Your task to perform on an android device: turn on notifications settings in the gmail app Image 0: 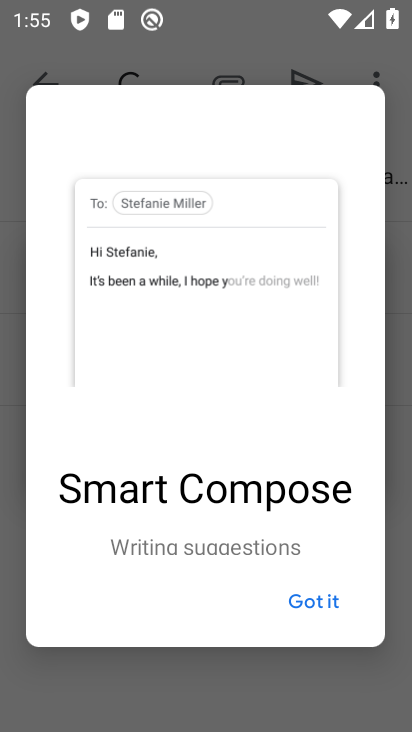
Step 0: press home button
Your task to perform on an android device: turn on notifications settings in the gmail app Image 1: 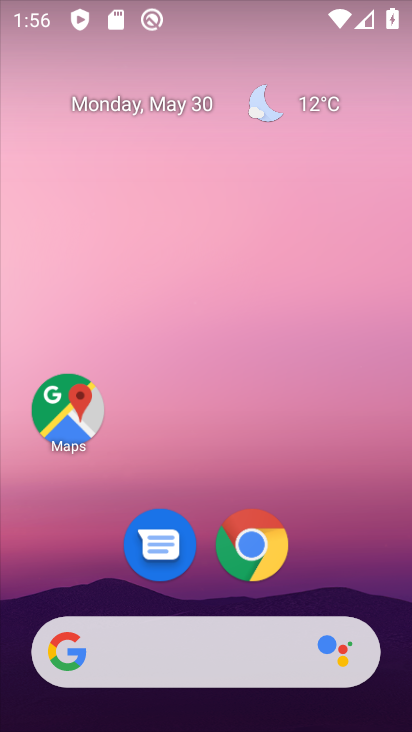
Step 1: drag from (202, 601) to (315, 0)
Your task to perform on an android device: turn on notifications settings in the gmail app Image 2: 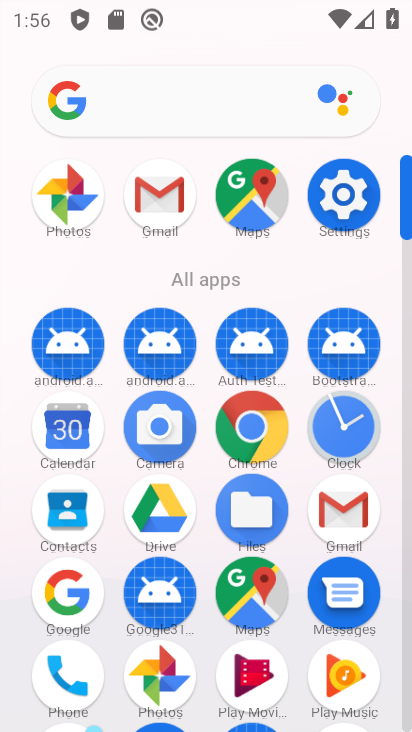
Step 2: click (160, 196)
Your task to perform on an android device: turn on notifications settings in the gmail app Image 3: 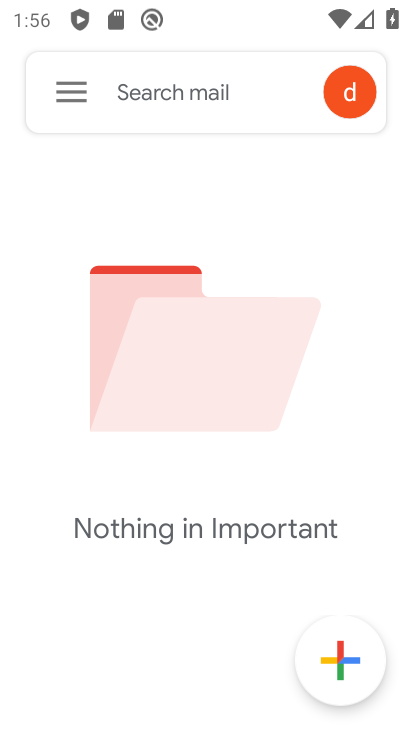
Step 3: click (79, 101)
Your task to perform on an android device: turn on notifications settings in the gmail app Image 4: 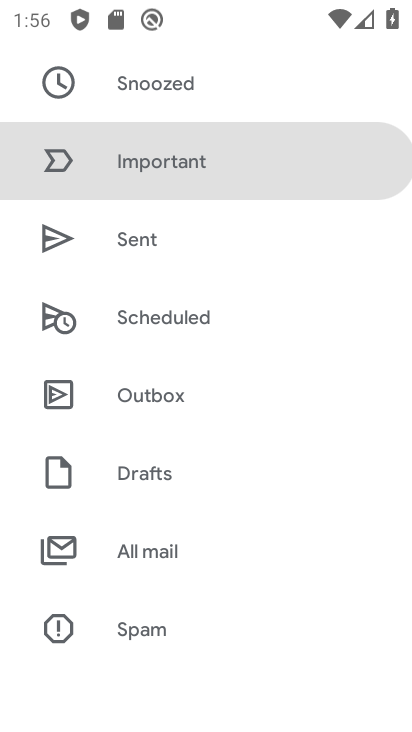
Step 4: drag from (167, 645) to (330, 140)
Your task to perform on an android device: turn on notifications settings in the gmail app Image 5: 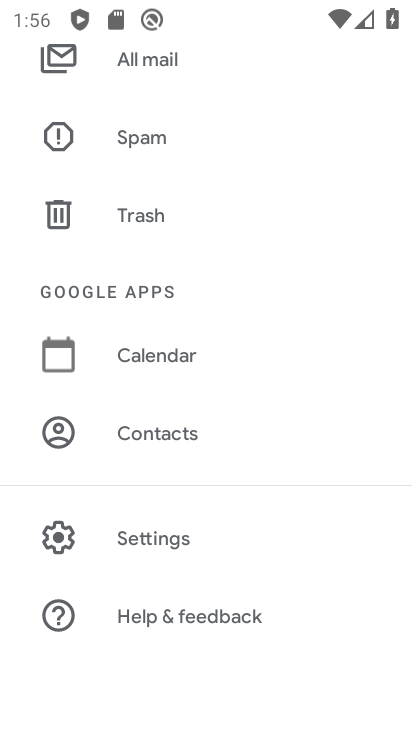
Step 5: click (163, 552)
Your task to perform on an android device: turn on notifications settings in the gmail app Image 6: 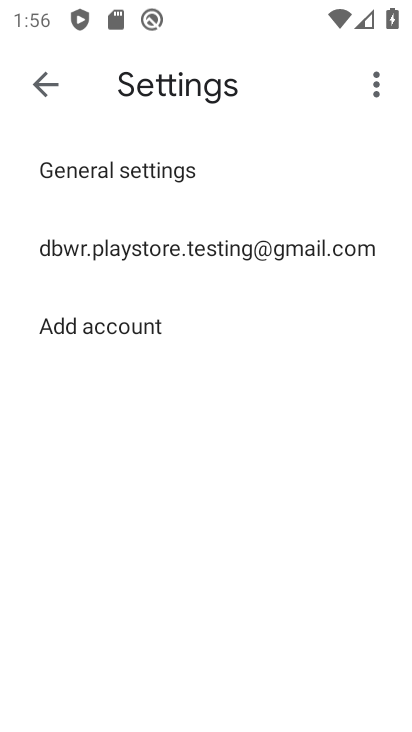
Step 6: click (208, 276)
Your task to perform on an android device: turn on notifications settings in the gmail app Image 7: 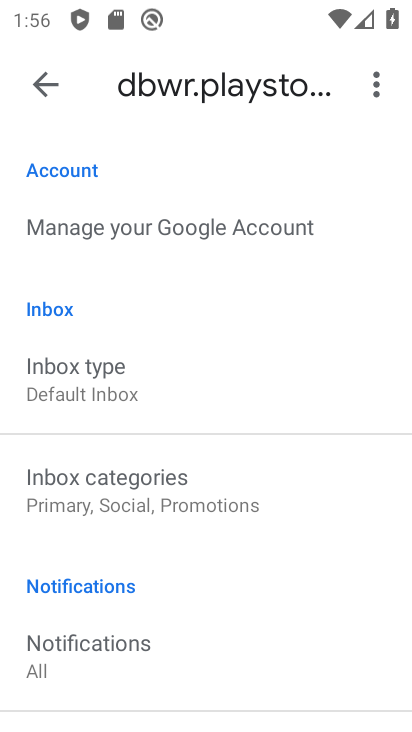
Step 7: click (137, 652)
Your task to perform on an android device: turn on notifications settings in the gmail app Image 8: 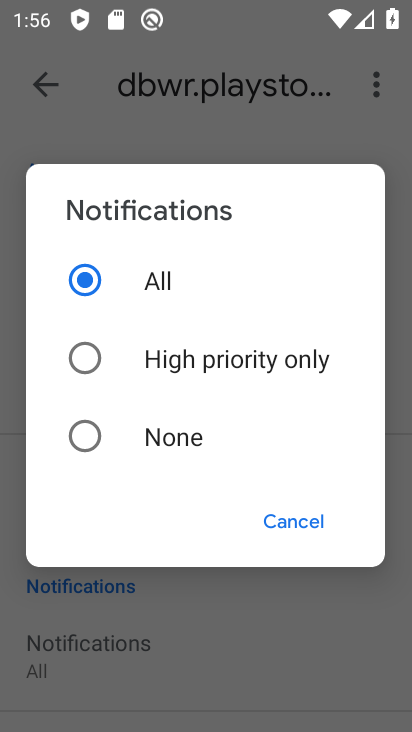
Step 8: task complete